Your task to perform on an android device: turn off smart reply in the gmail app Image 0: 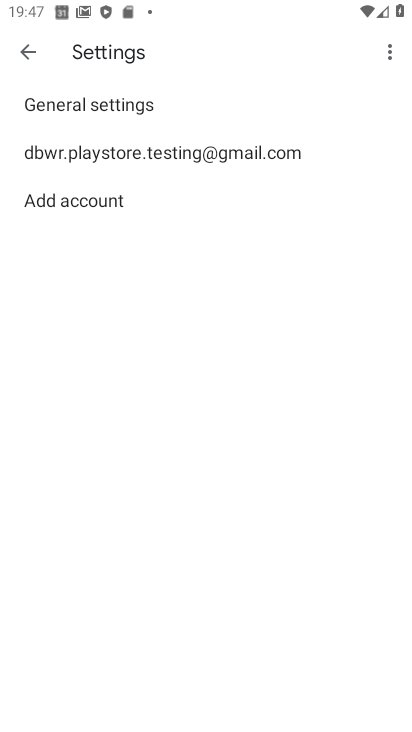
Step 0: press home button
Your task to perform on an android device: turn off smart reply in the gmail app Image 1: 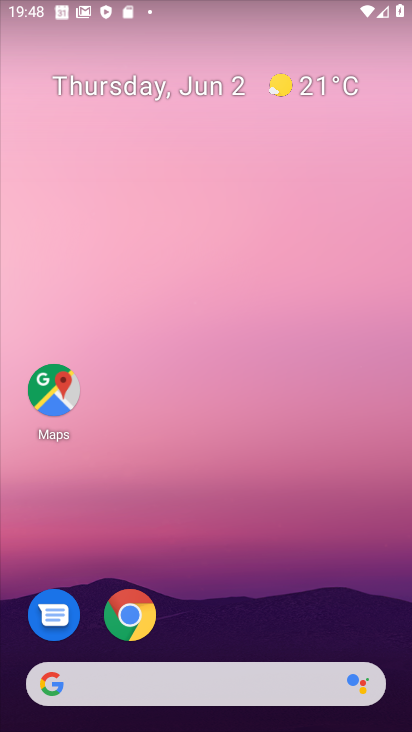
Step 1: drag from (309, 621) to (231, 173)
Your task to perform on an android device: turn off smart reply in the gmail app Image 2: 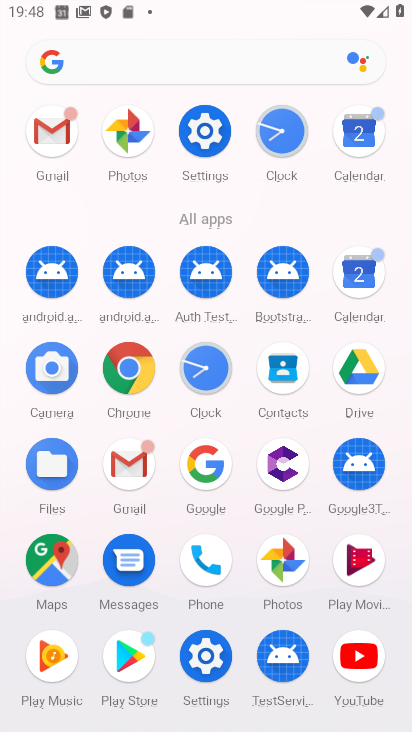
Step 2: click (74, 150)
Your task to perform on an android device: turn off smart reply in the gmail app Image 3: 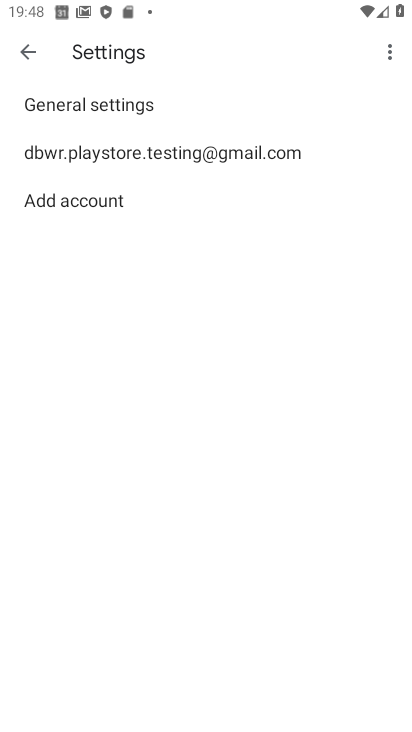
Step 3: click (100, 154)
Your task to perform on an android device: turn off smart reply in the gmail app Image 4: 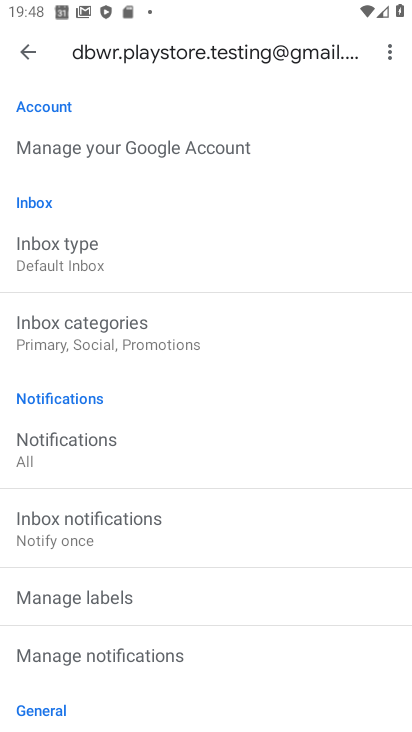
Step 4: task complete